Your task to perform on an android device: turn on airplane mode Image 0: 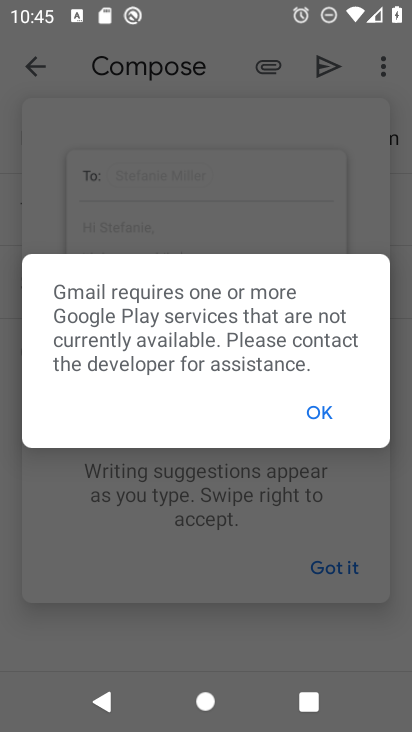
Step 0: press home button
Your task to perform on an android device: turn on airplane mode Image 1: 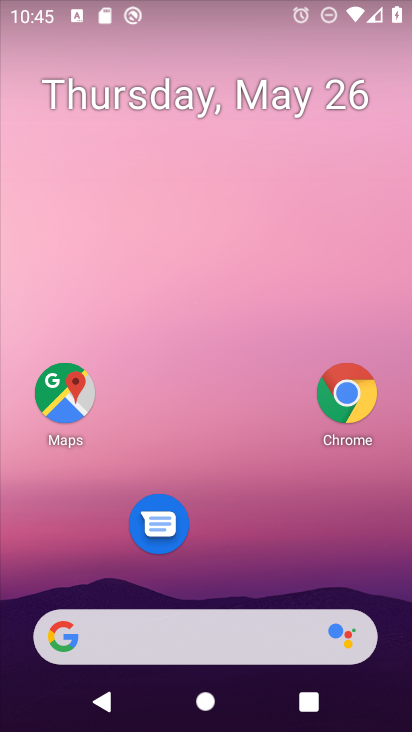
Step 1: drag from (235, 542) to (286, 37)
Your task to perform on an android device: turn on airplane mode Image 2: 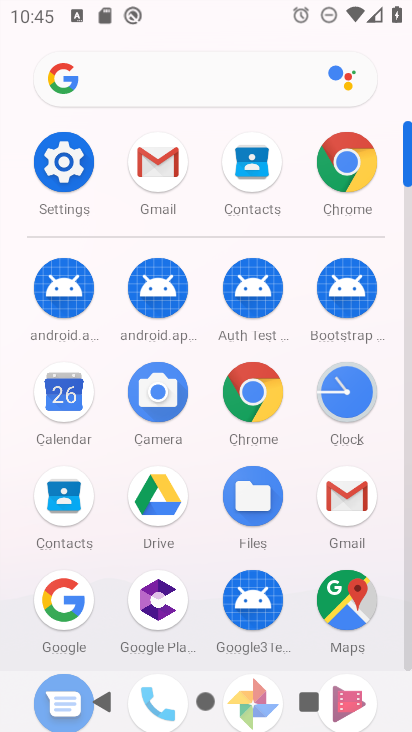
Step 2: click (76, 165)
Your task to perform on an android device: turn on airplane mode Image 3: 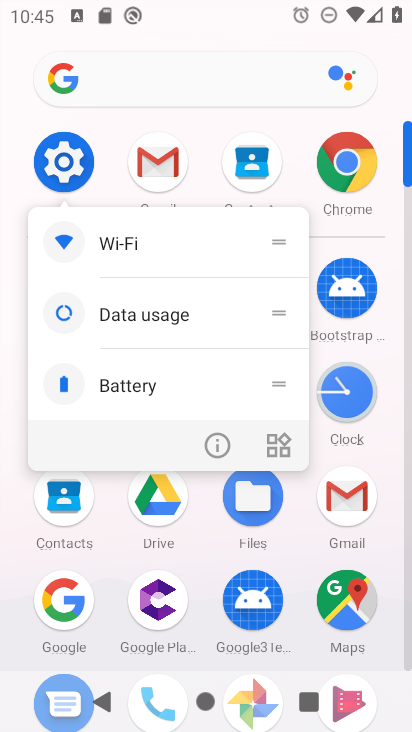
Step 3: click (74, 151)
Your task to perform on an android device: turn on airplane mode Image 4: 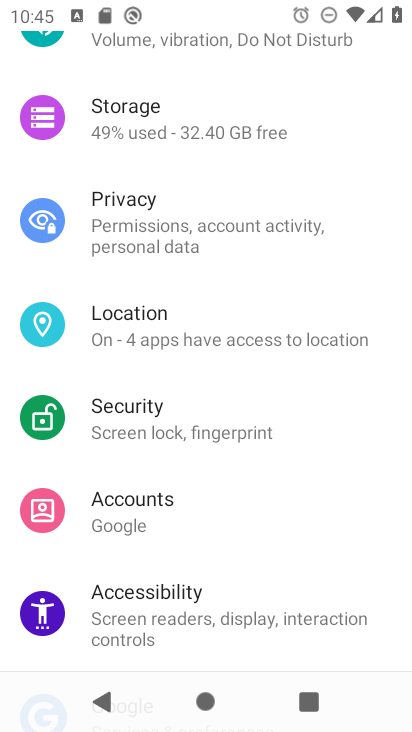
Step 4: drag from (206, 155) to (228, 614)
Your task to perform on an android device: turn on airplane mode Image 5: 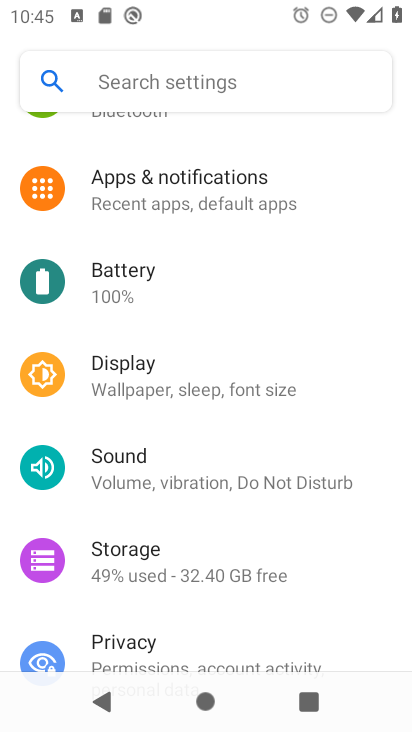
Step 5: drag from (273, 294) to (242, 611)
Your task to perform on an android device: turn on airplane mode Image 6: 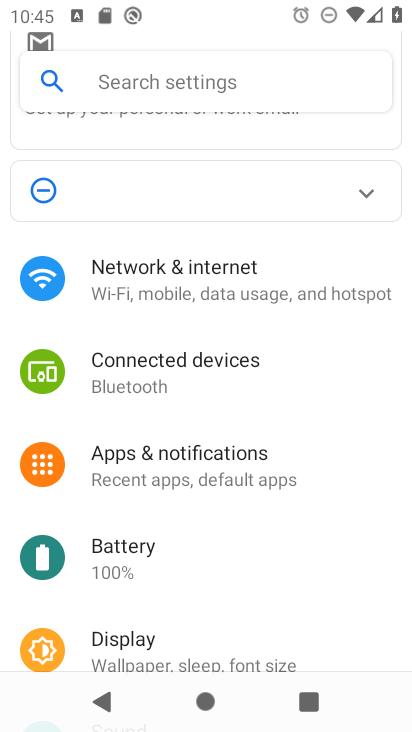
Step 6: click (247, 267)
Your task to perform on an android device: turn on airplane mode Image 7: 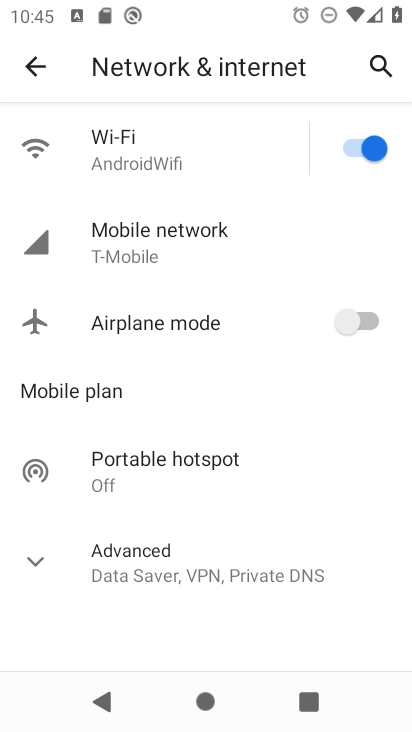
Step 7: click (345, 312)
Your task to perform on an android device: turn on airplane mode Image 8: 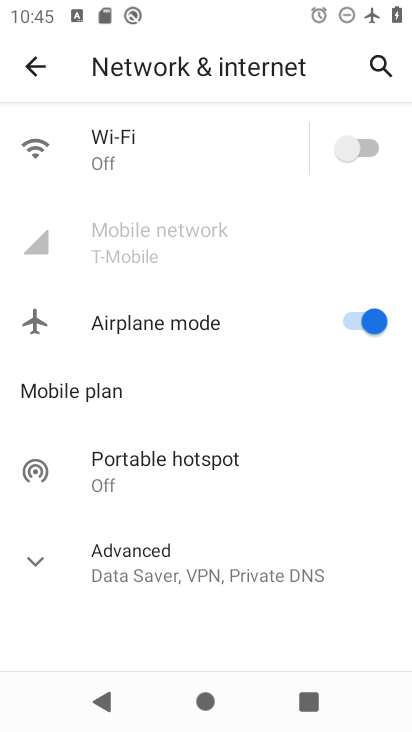
Step 8: task complete